Your task to perform on an android device: open wifi settings Image 0: 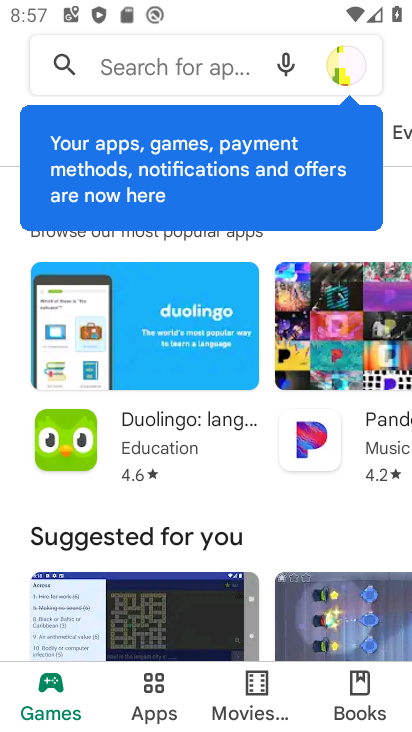
Step 0: press home button
Your task to perform on an android device: open wifi settings Image 1: 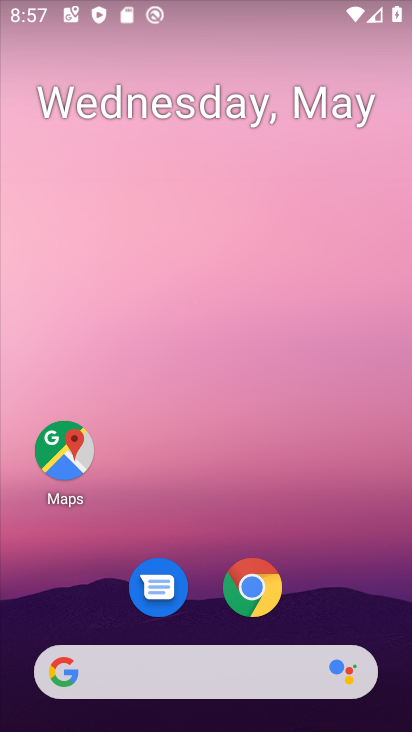
Step 1: drag from (214, 726) to (213, 19)
Your task to perform on an android device: open wifi settings Image 2: 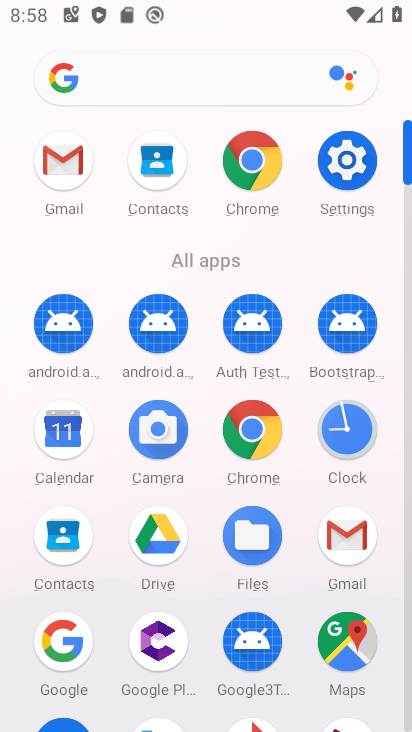
Step 2: click (342, 158)
Your task to perform on an android device: open wifi settings Image 3: 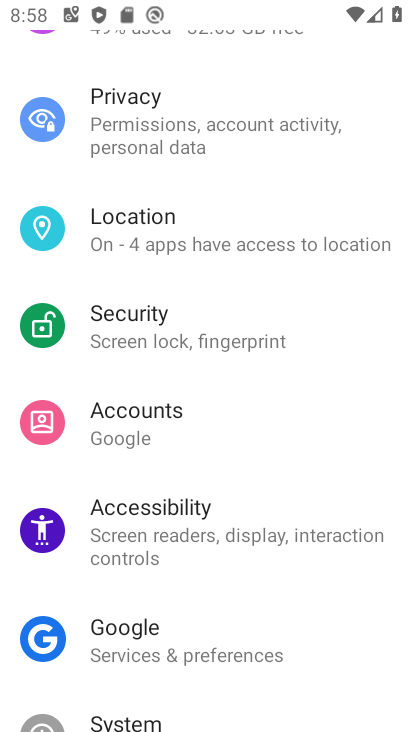
Step 3: drag from (243, 102) to (234, 536)
Your task to perform on an android device: open wifi settings Image 4: 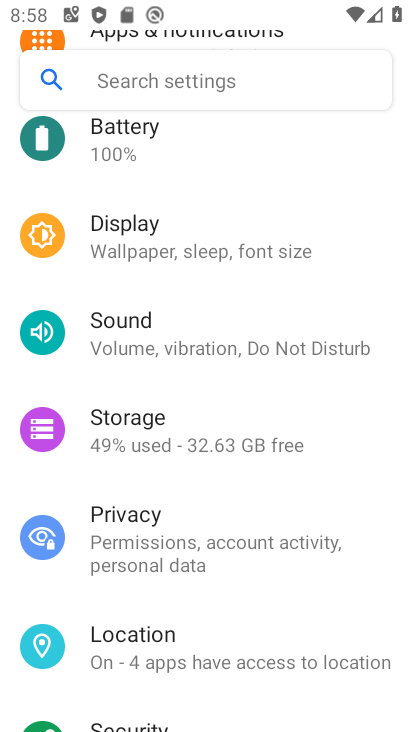
Step 4: drag from (194, 128) to (194, 489)
Your task to perform on an android device: open wifi settings Image 5: 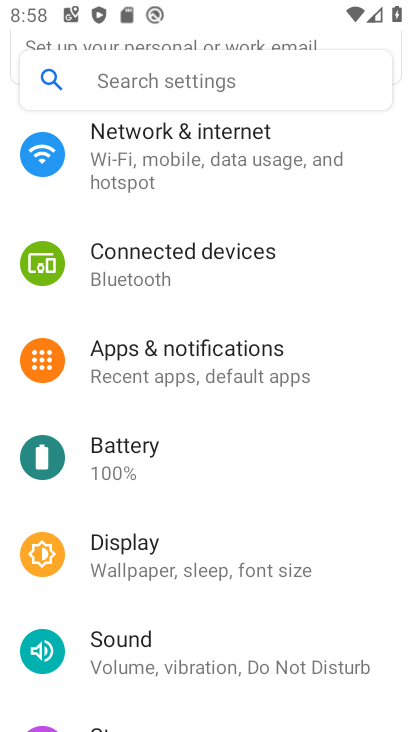
Step 5: drag from (205, 146) to (191, 478)
Your task to perform on an android device: open wifi settings Image 6: 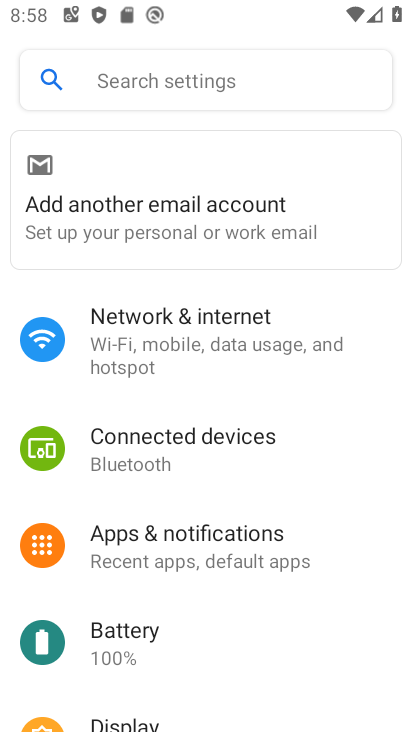
Step 6: click (179, 331)
Your task to perform on an android device: open wifi settings Image 7: 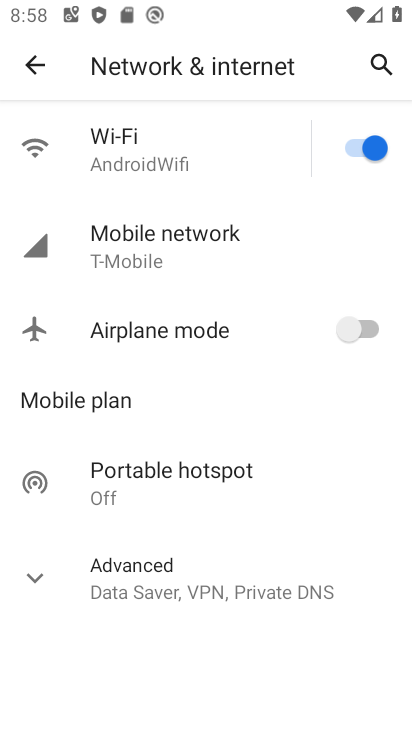
Step 7: click (110, 154)
Your task to perform on an android device: open wifi settings Image 8: 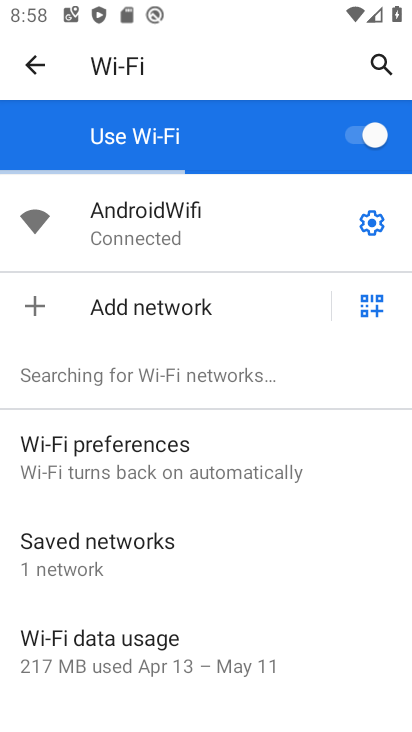
Step 8: task complete